Your task to perform on an android device: What's the weather? Image 0: 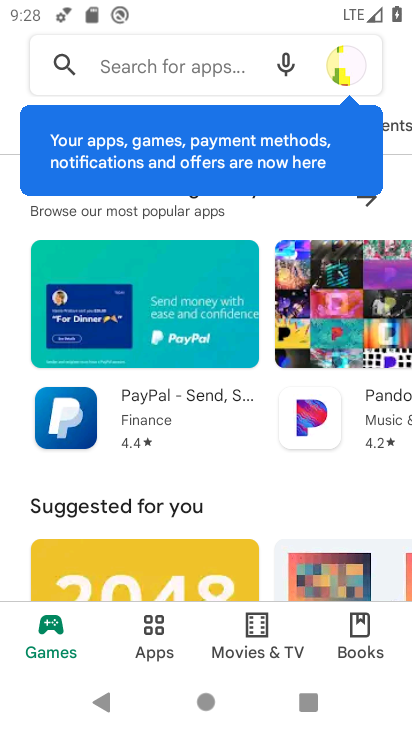
Step 0: press home button
Your task to perform on an android device: What's the weather? Image 1: 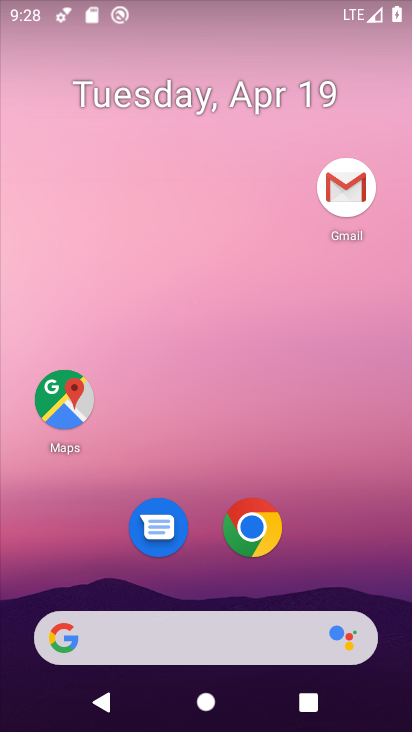
Step 1: click (264, 530)
Your task to perform on an android device: What's the weather? Image 2: 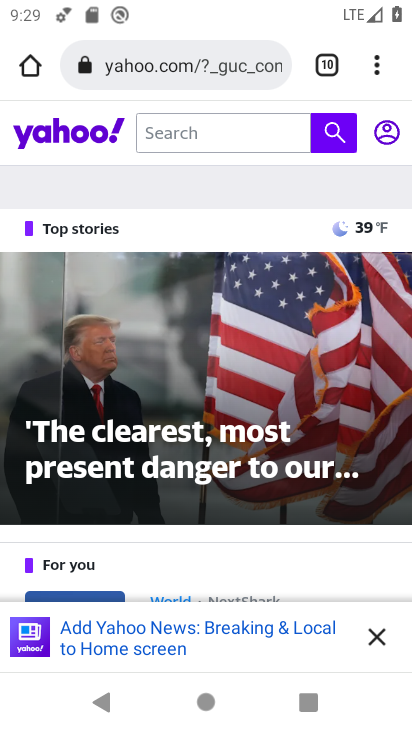
Step 2: click (249, 72)
Your task to perform on an android device: What's the weather? Image 3: 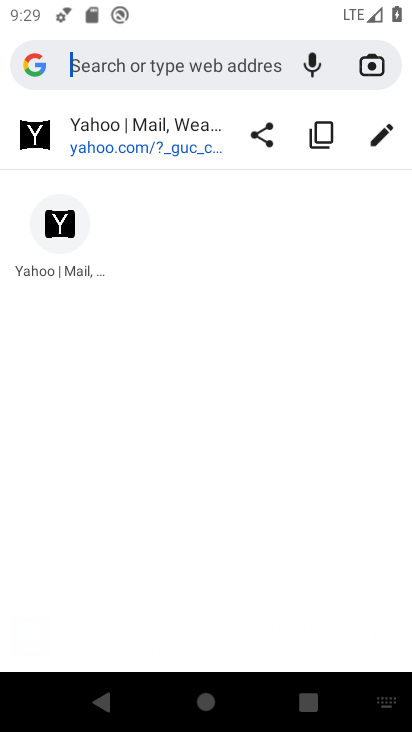
Step 3: type "what's the weather"
Your task to perform on an android device: What's the weather? Image 4: 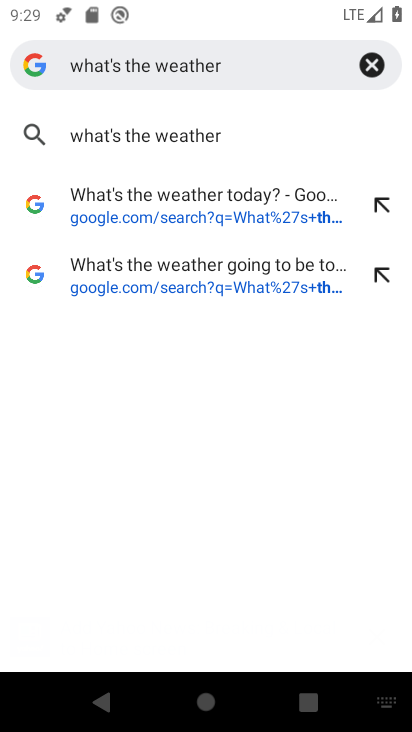
Step 4: click (113, 140)
Your task to perform on an android device: What's the weather? Image 5: 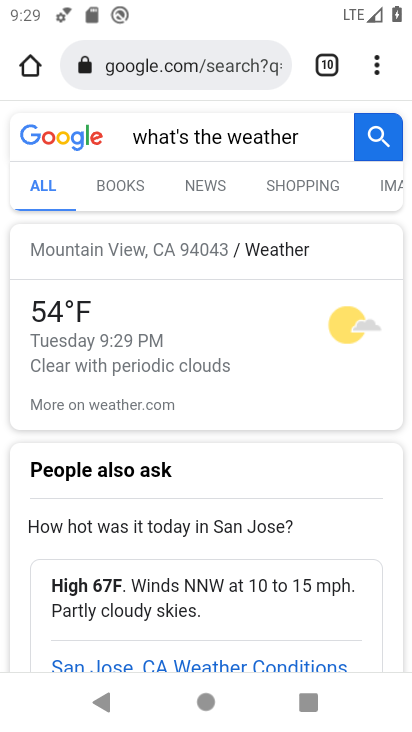
Step 5: task complete